Your task to perform on an android device: turn notification dots off Image 0: 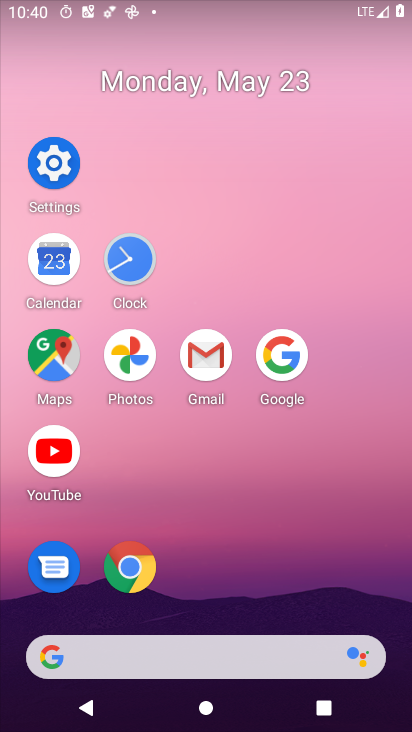
Step 0: click (71, 154)
Your task to perform on an android device: turn notification dots off Image 1: 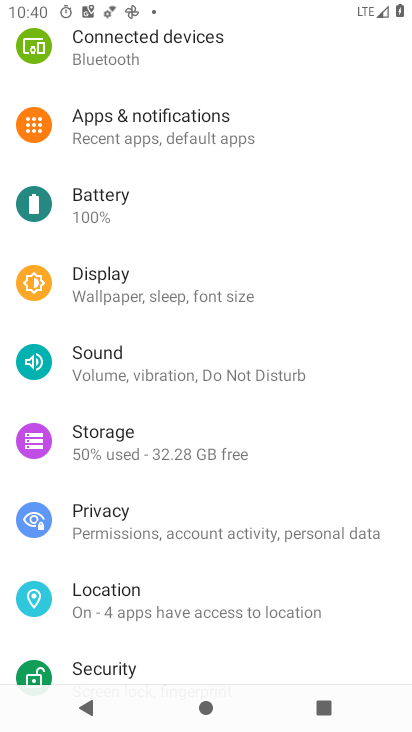
Step 1: click (96, 139)
Your task to perform on an android device: turn notification dots off Image 2: 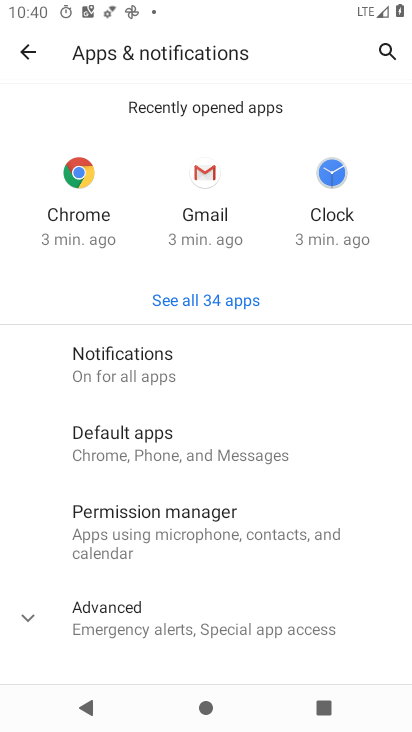
Step 2: click (218, 378)
Your task to perform on an android device: turn notification dots off Image 3: 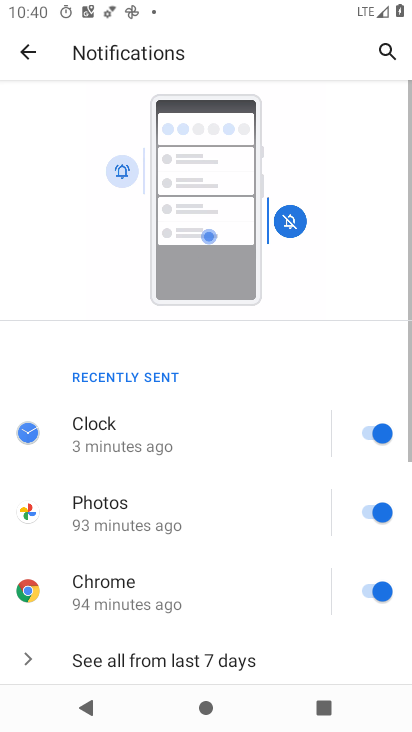
Step 3: drag from (171, 603) to (180, 92)
Your task to perform on an android device: turn notification dots off Image 4: 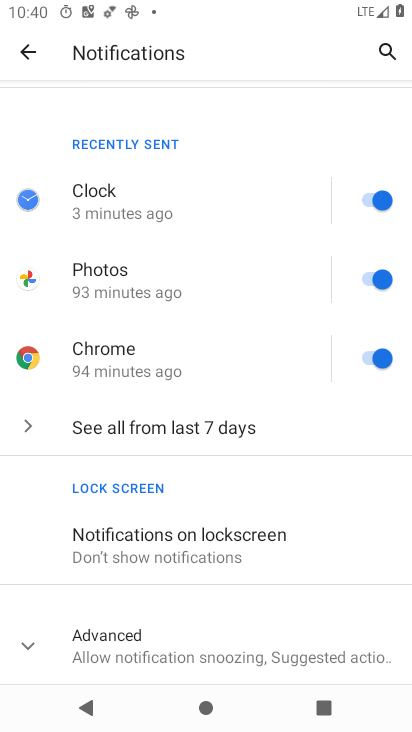
Step 4: click (195, 649)
Your task to perform on an android device: turn notification dots off Image 5: 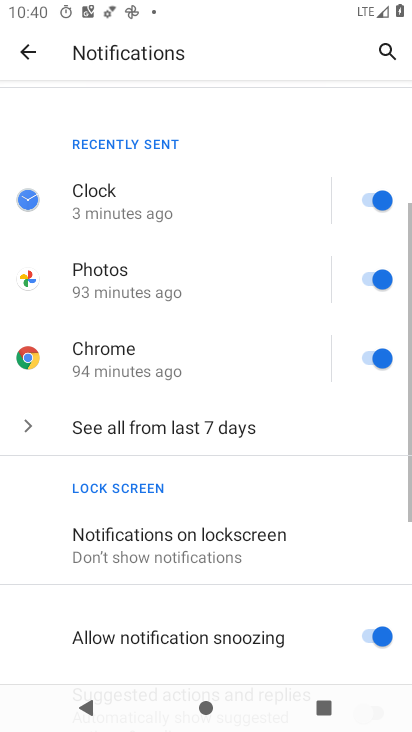
Step 5: drag from (188, 644) to (137, 144)
Your task to perform on an android device: turn notification dots off Image 6: 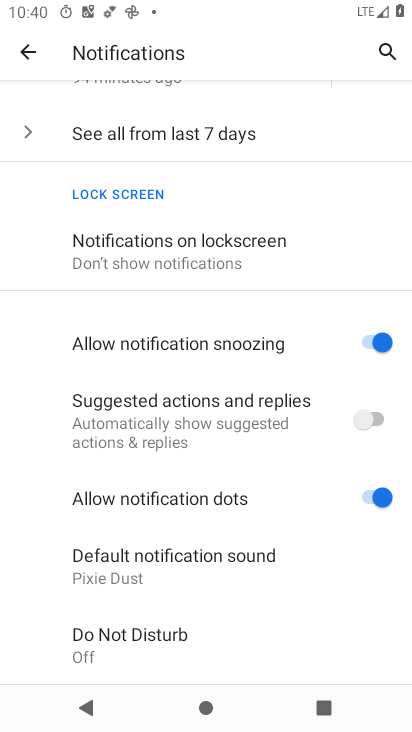
Step 6: click (382, 498)
Your task to perform on an android device: turn notification dots off Image 7: 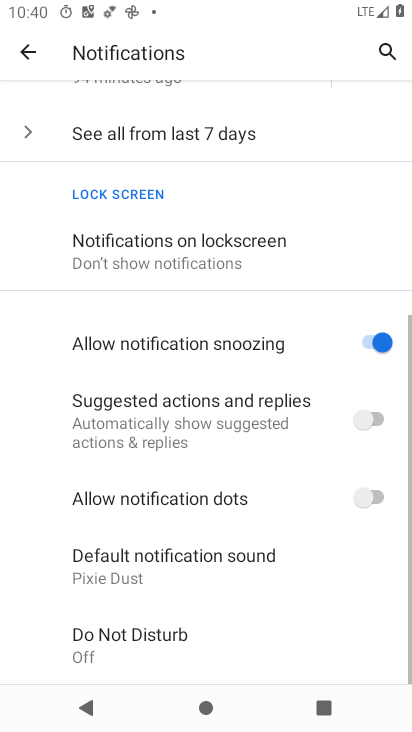
Step 7: task complete